Your task to perform on an android device: Toggle the flashlight Image 0: 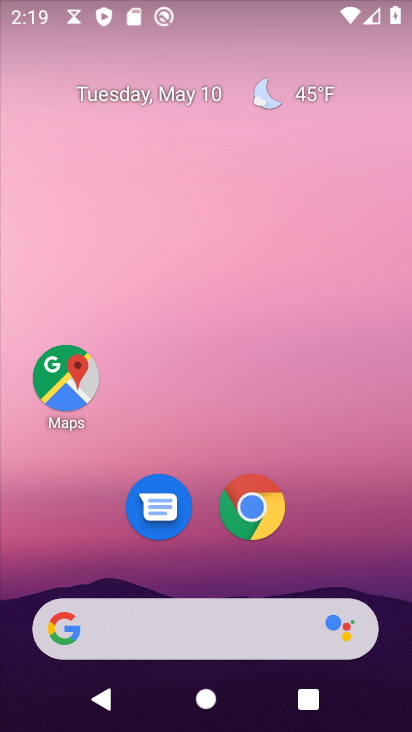
Step 0: drag from (319, 538) to (214, 225)
Your task to perform on an android device: Toggle the flashlight Image 1: 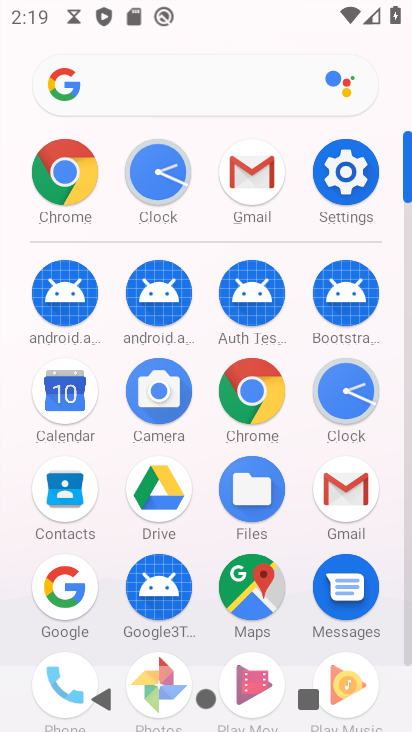
Step 1: click (334, 190)
Your task to perform on an android device: Toggle the flashlight Image 2: 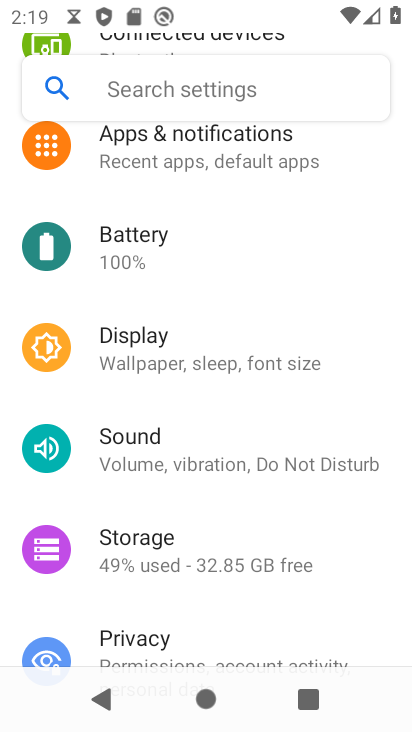
Step 2: click (173, 98)
Your task to perform on an android device: Toggle the flashlight Image 3: 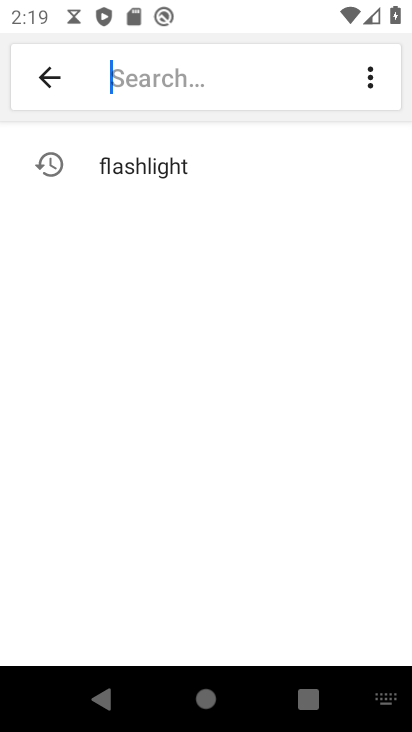
Step 3: click (125, 169)
Your task to perform on an android device: Toggle the flashlight Image 4: 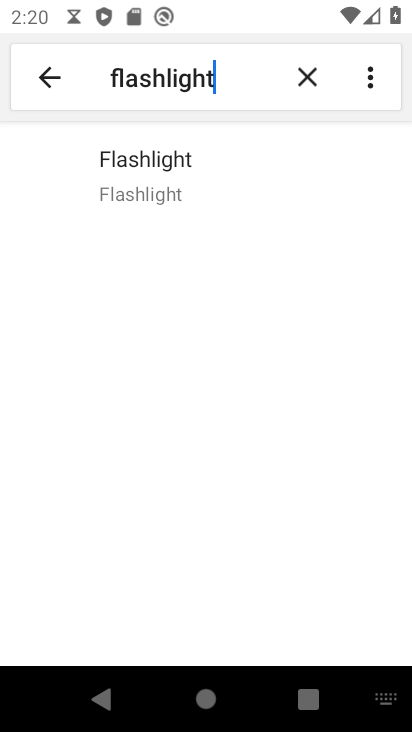
Step 4: click (145, 177)
Your task to perform on an android device: Toggle the flashlight Image 5: 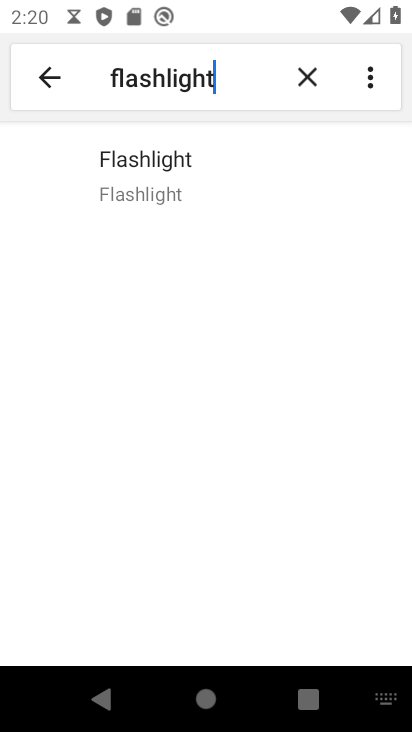
Step 5: click (145, 177)
Your task to perform on an android device: Toggle the flashlight Image 6: 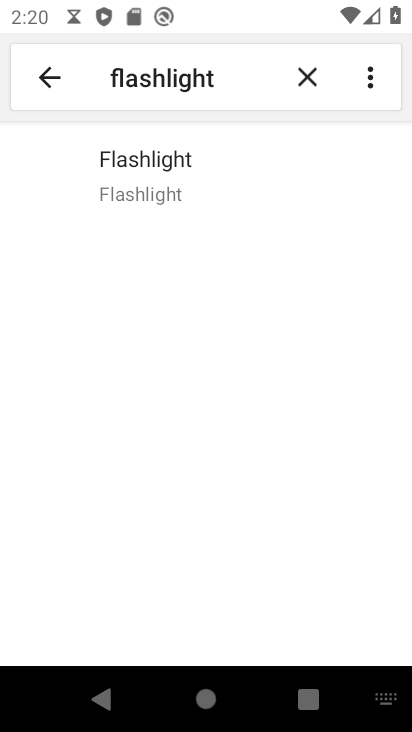
Step 6: task complete